Your task to perform on an android device: Go to eBay Image 0: 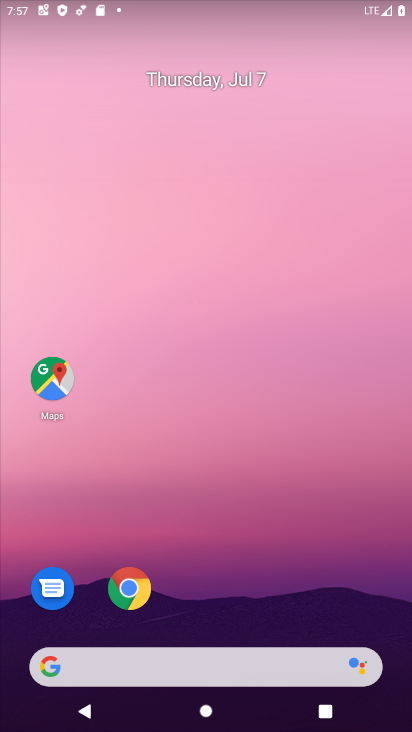
Step 0: drag from (277, 555) to (258, 129)
Your task to perform on an android device: Go to eBay Image 1: 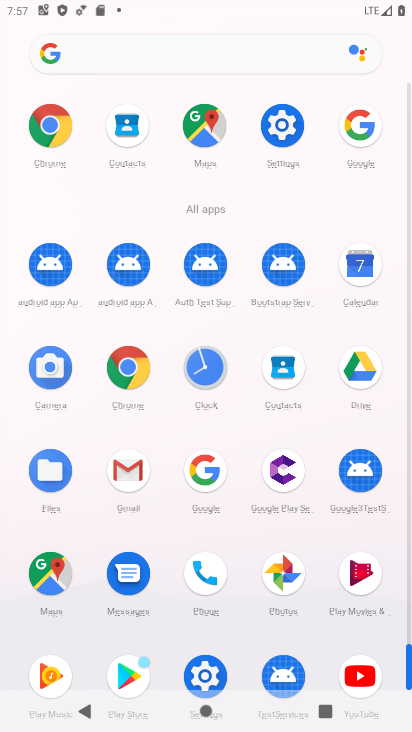
Step 1: click (51, 129)
Your task to perform on an android device: Go to eBay Image 2: 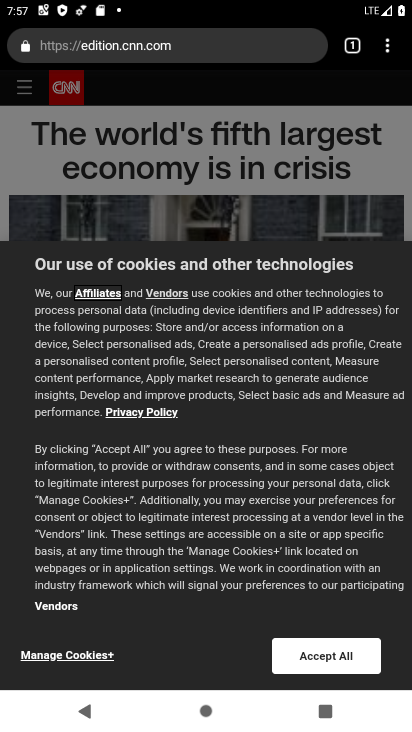
Step 2: click (187, 56)
Your task to perform on an android device: Go to eBay Image 3: 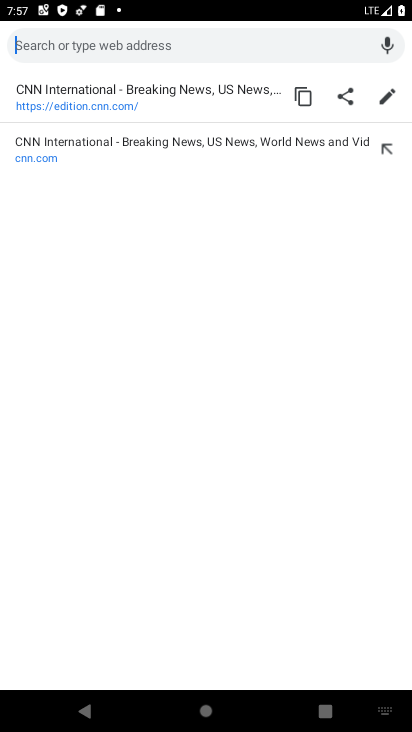
Step 3: type "ebay"
Your task to perform on an android device: Go to eBay Image 4: 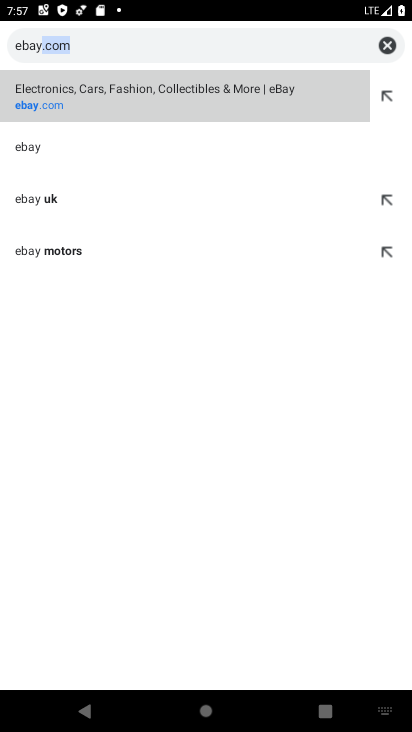
Step 4: click (65, 109)
Your task to perform on an android device: Go to eBay Image 5: 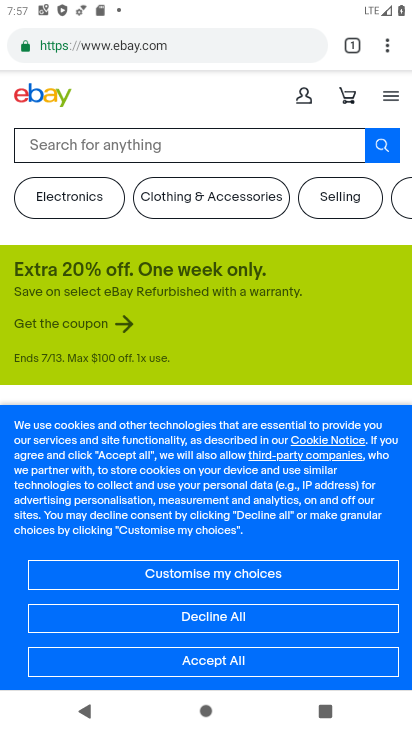
Step 5: task complete